Your task to perform on an android device: set the timer Image 0: 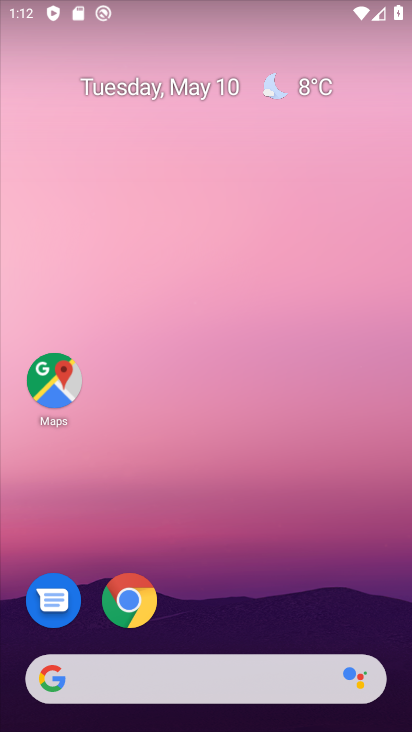
Step 0: drag from (229, 614) to (267, 32)
Your task to perform on an android device: set the timer Image 1: 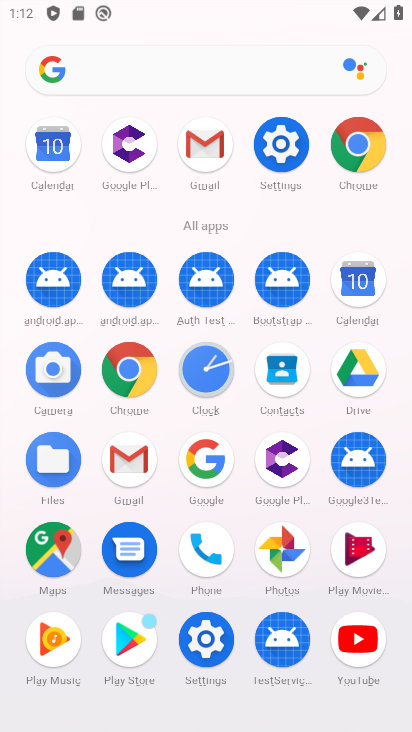
Step 1: click (205, 358)
Your task to perform on an android device: set the timer Image 2: 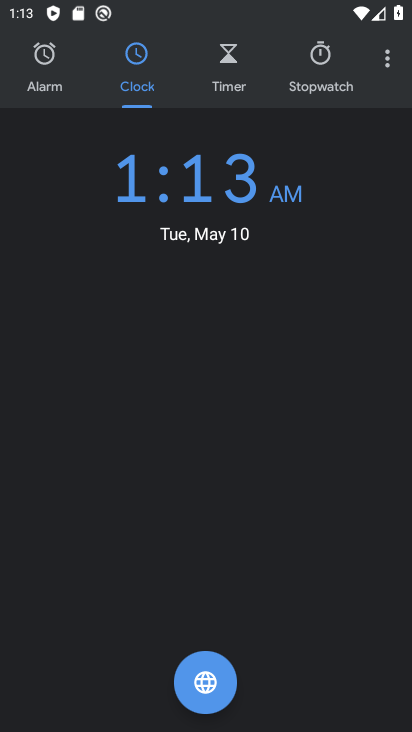
Step 2: click (232, 61)
Your task to perform on an android device: set the timer Image 3: 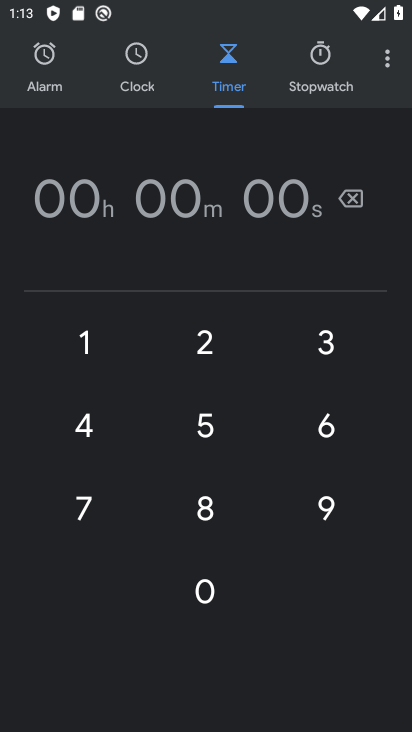
Step 3: click (321, 350)
Your task to perform on an android device: set the timer Image 4: 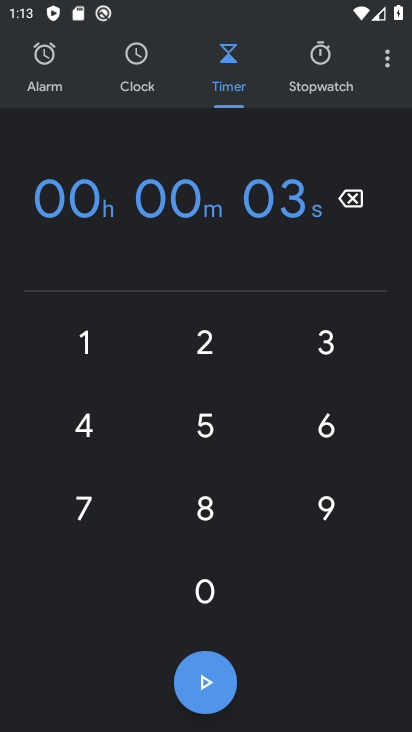
Step 4: click (199, 605)
Your task to perform on an android device: set the timer Image 5: 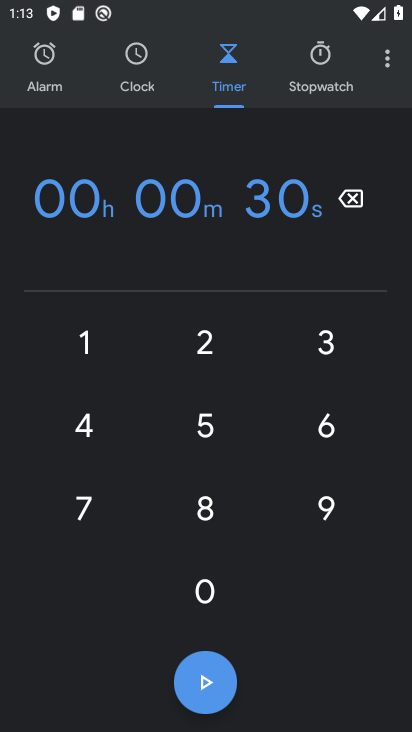
Step 5: click (211, 590)
Your task to perform on an android device: set the timer Image 6: 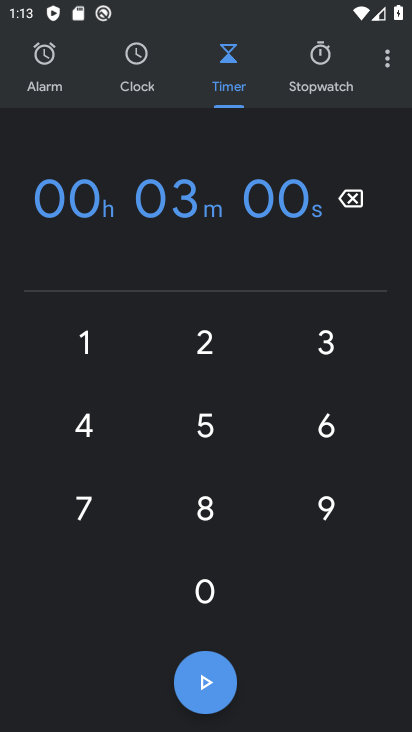
Step 6: click (211, 590)
Your task to perform on an android device: set the timer Image 7: 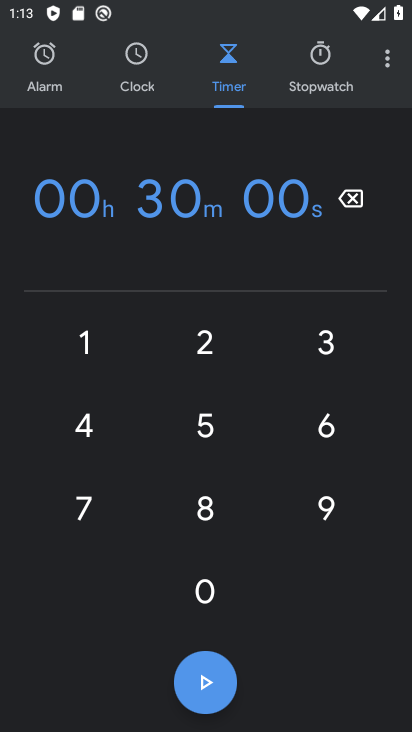
Step 7: click (201, 683)
Your task to perform on an android device: set the timer Image 8: 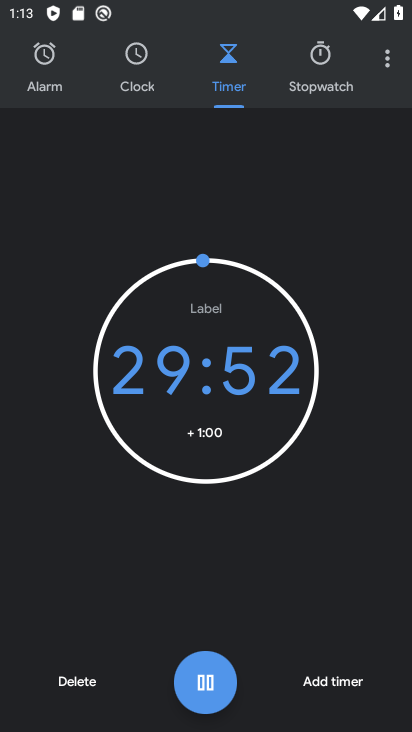
Step 8: task complete